Your task to perform on an android device: Set the phone to "Do not disturb". Image 0: 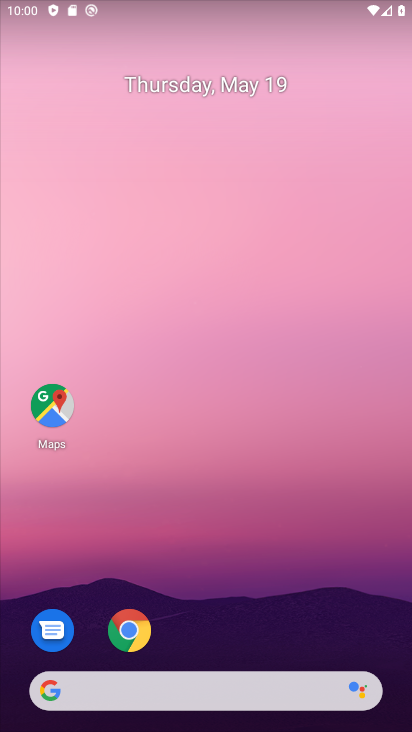
Step 0: press home button
Your task to perform on an android device: Set the phone to "Do not disturb". Image 1: 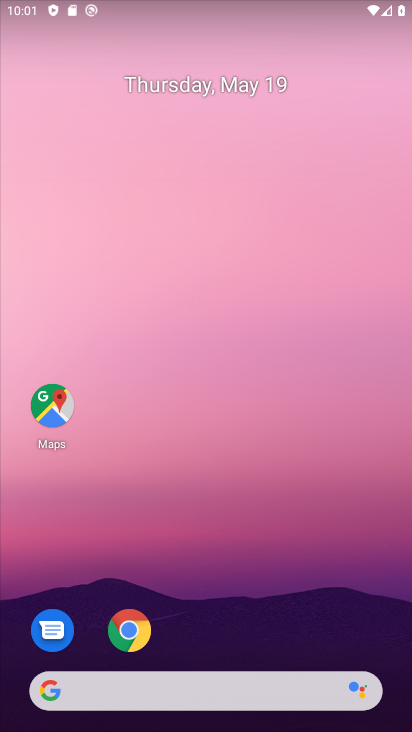
Step 1: drag from (316, 619) to (309, 113)
Your task to perform on an android device: Set the phone to "Do not disturb". Image 2: 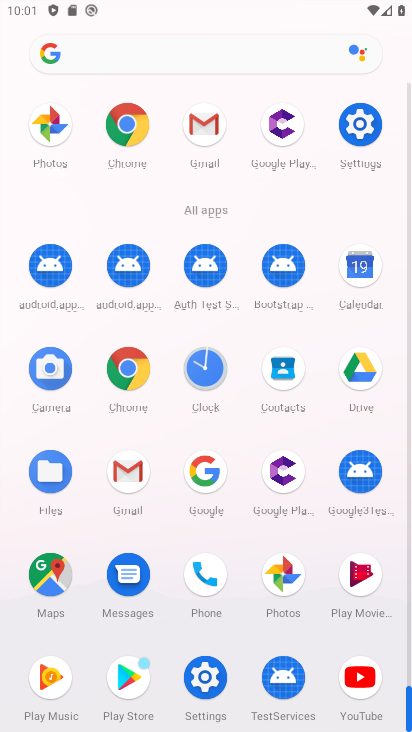
Step 2: click (354, 146)
Your task to perform on an android device: Set the phone to "Do not disturb". Image 3: 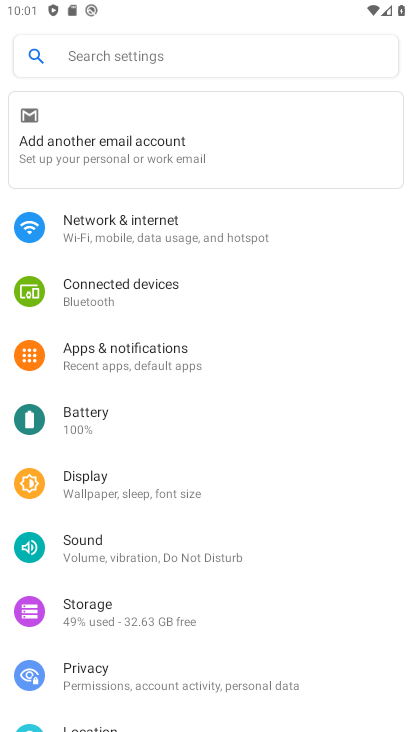
Step 3: drag from (231, 605) to (223, 338)
Your task to perform on an android device: Set the phone to "Do not disturb". Image 4: 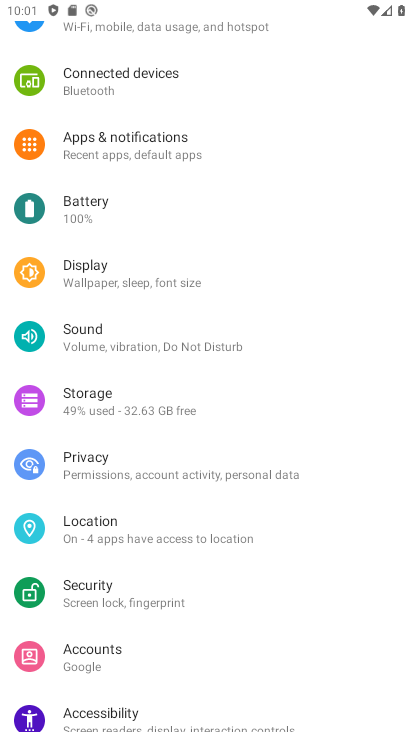
Step 4: click (193, 348)
Your task to perform on an android device: Set the phone to "Do not disturb". Image 5: 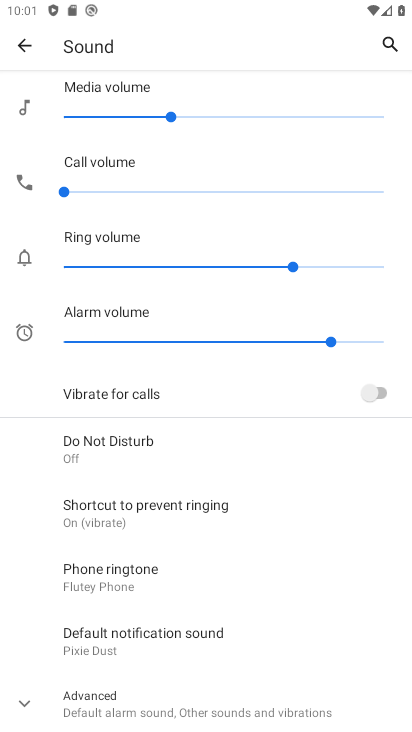
Step 5: click (126, 456)
Your task to perform on an android device: Set the phone to "Do not disturb". Image 6: 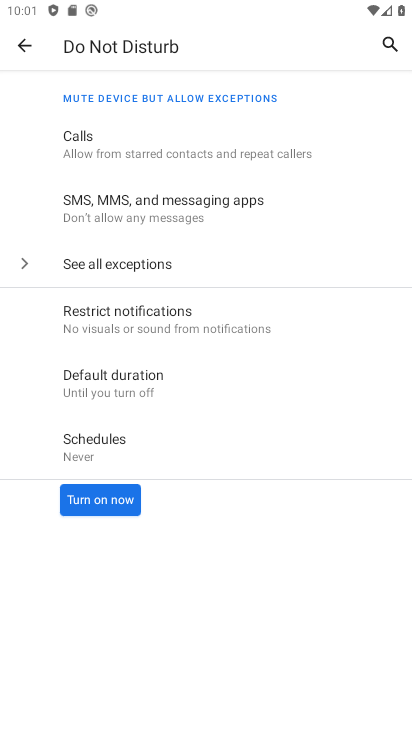
Step 6: click (125, 496)
Your task to perform on an android device: Set the phone to "Do not disturb". Image 7: 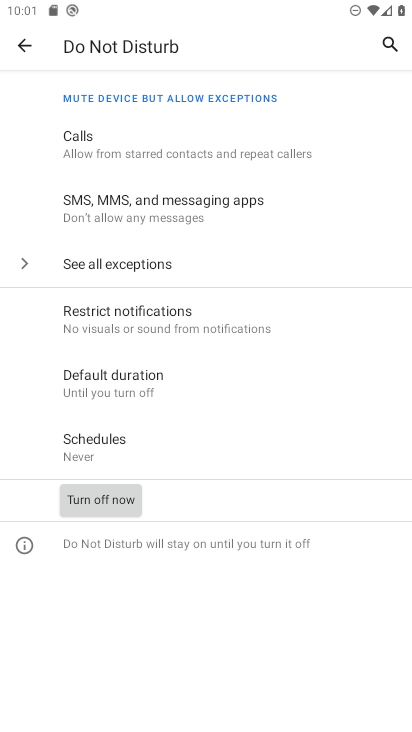
Step 7: task complete